Your task to perform on an android device: Go to privacy settings Image 0: 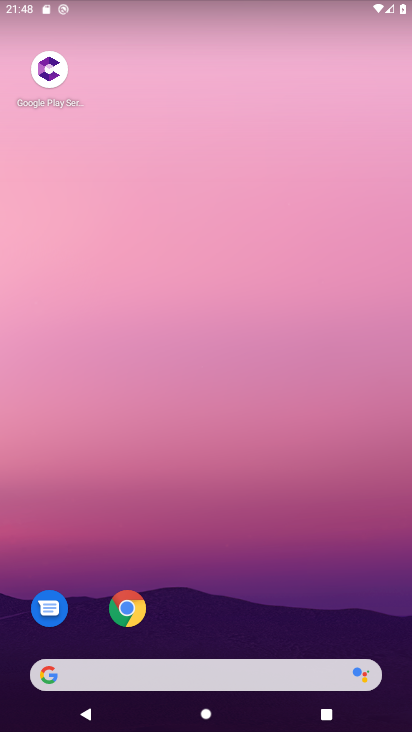
Step 0: drag from (204, 650) to (244, 108)
Your task to perform on an android device: Go to privacy settings Image 1: 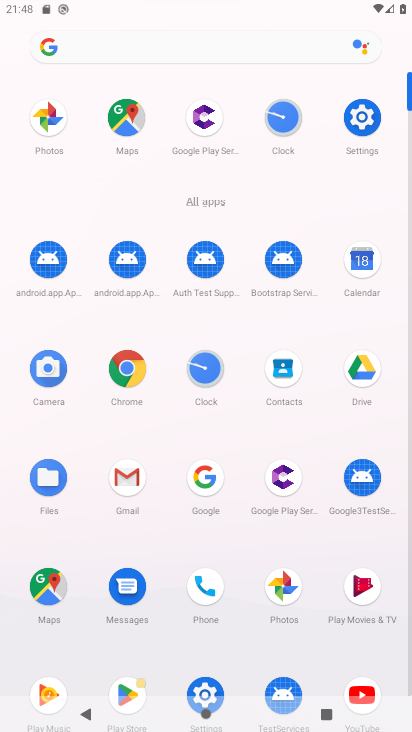
Step 1: click (130, 371)
Your task to perform on an android device: Go to privacy settings Image 2: 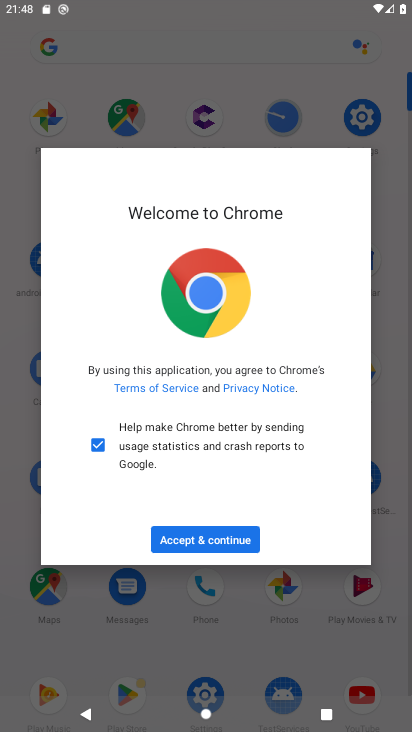
Step 2: click (238, 537)
Your task to perform on an android device: Go to privacy settings Image 3: 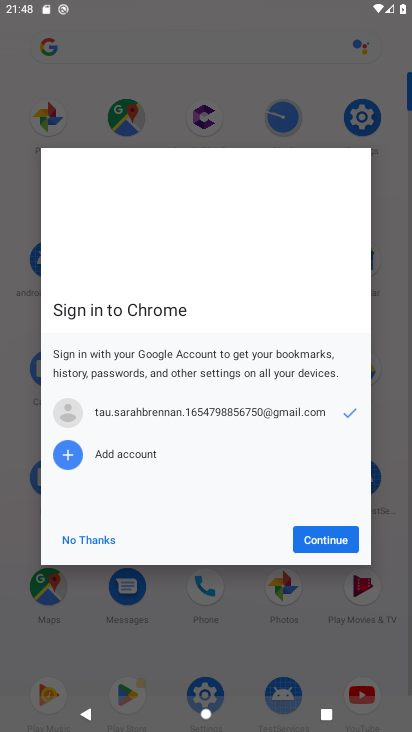
Step 3: click (318, 541)
Your task to perform on an android device: Go to privacy settings Image 4: 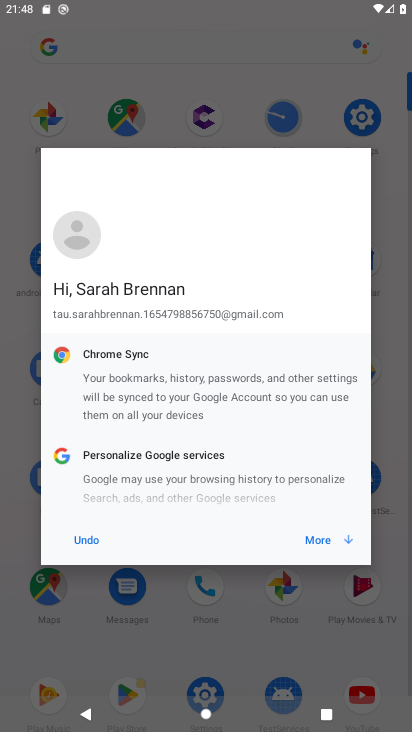
Step 4: click (318, 541)
Your task to perform on an android device: Go to privacy settings Image 5: 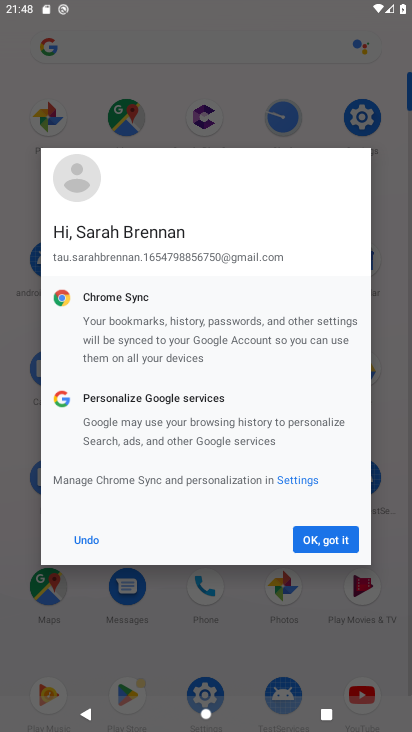
Step 5: click (333, 538)
Your task to perform on an android device: Go to privacy settings Image 6: 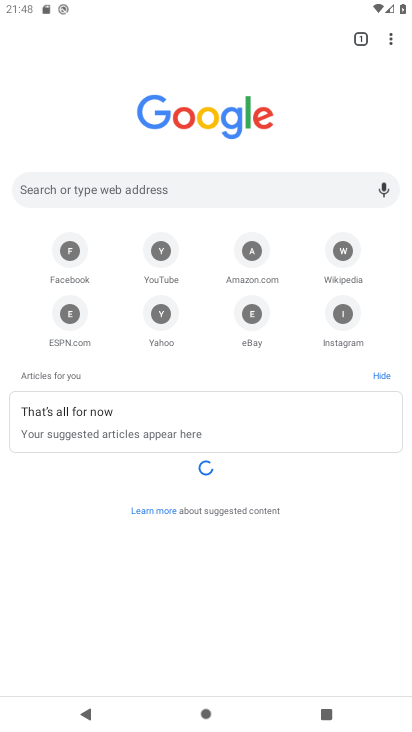
Step 6: drag from (389, 37) to (271, 331)
Your task to perform on an android device: Go to privacy settings Image 7: 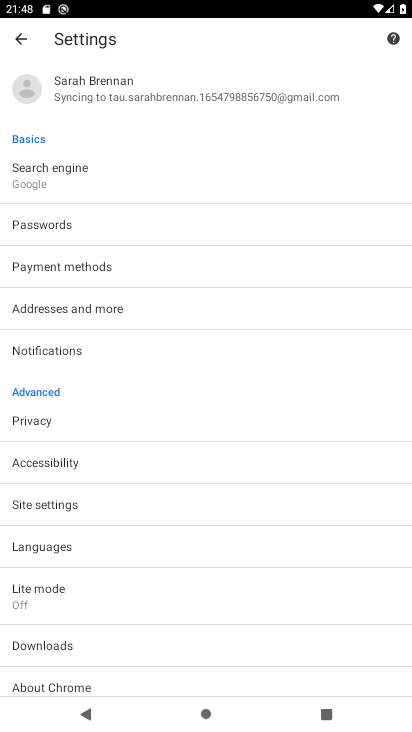
Step 7: click (111, 418)
Your task to perform on an android device: Go to privacy settings Image 8: 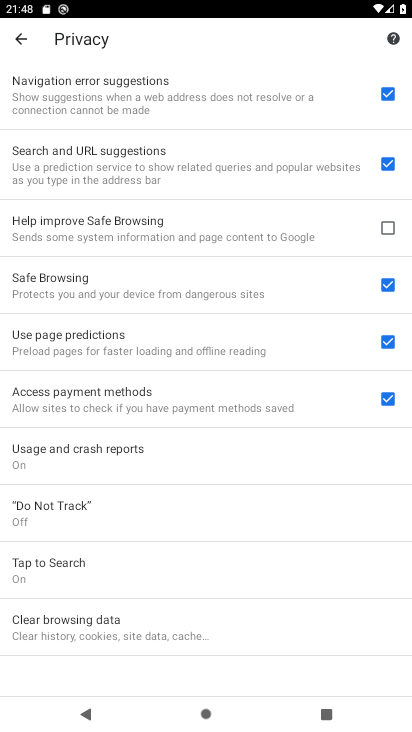
Step 8: task complete